Your task to perform on an android device: check storage Image 0: 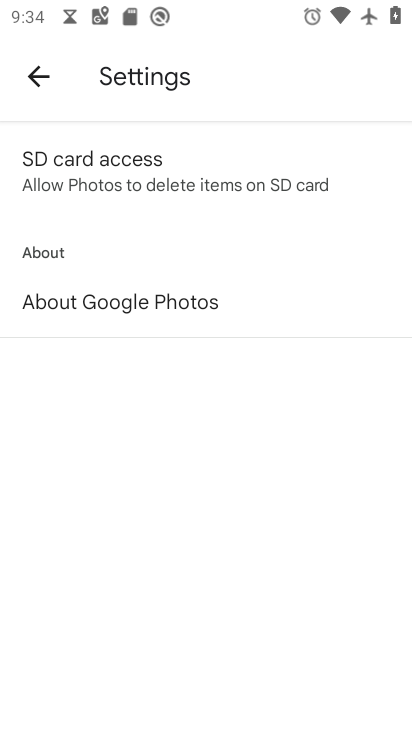
Step 0: press home button
Your task to perform on an android device: check storage Image 1: 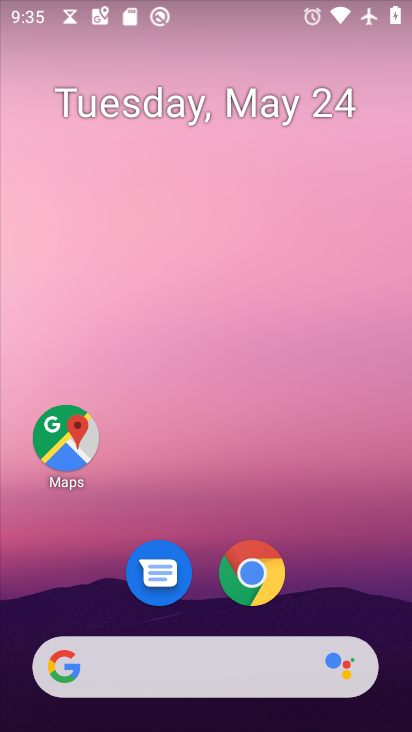
Step 1: drag from (357, 578) to (395, 134)
Your task to perform on an android device: check storage Image 2: 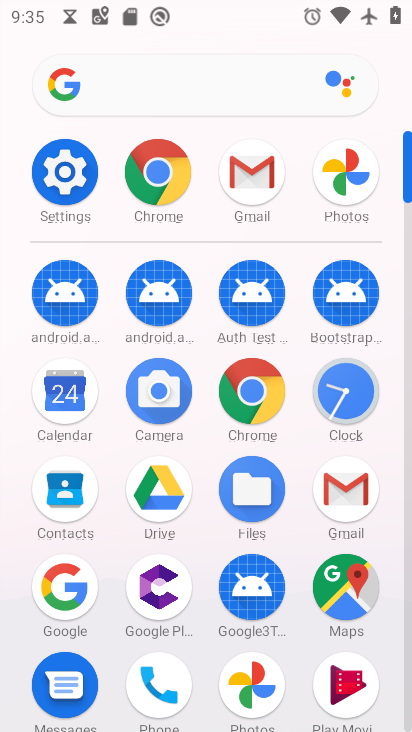
Step 2: click (80, 176)
Your task to perform on an android device: check storage Image 3: 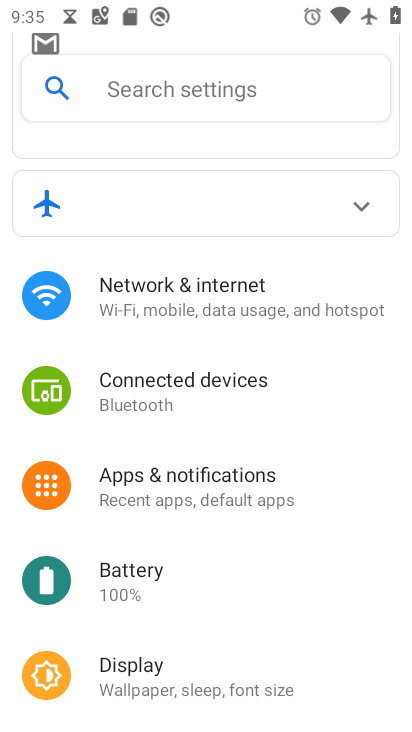
Step 3: drag from (242, 659) to (302, 200)
Your task to perform on an android device: check storage Image 4: 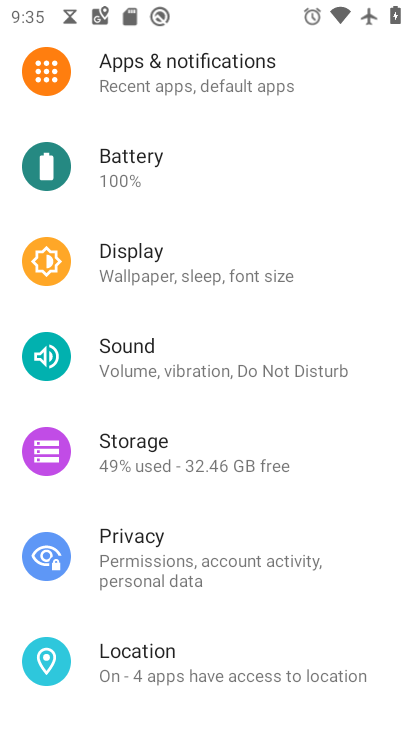
Step 4: click (175, 453)
Your task to perform on an android device: check storage Image 5: 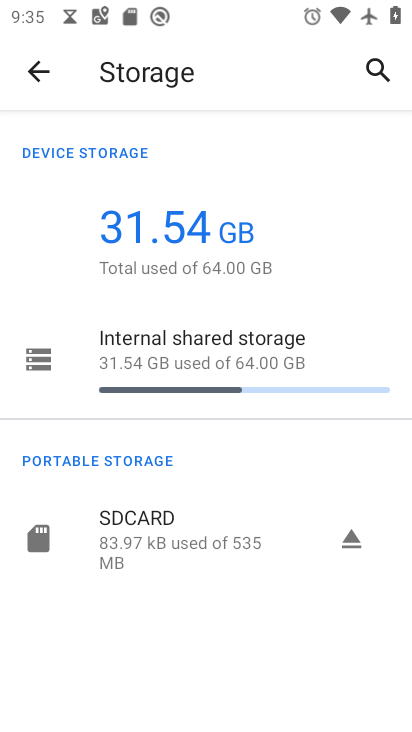
Step 5: click (196, 348)
Your task to perform on an android device: check storage Image 6: 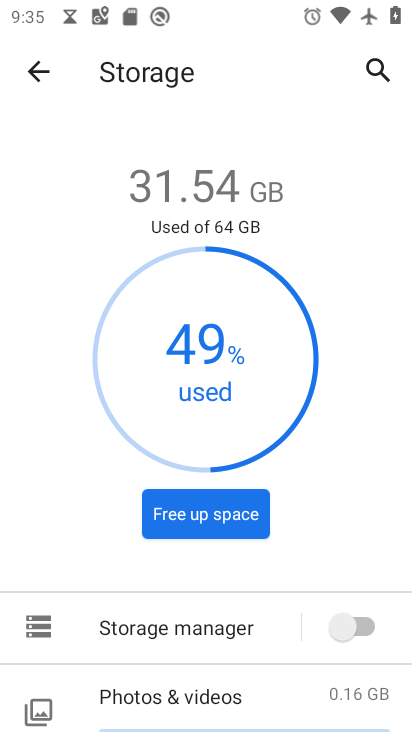
Step 6: task complete